Your task to perform on an android device: set default search engine in the chrome app Image 0: 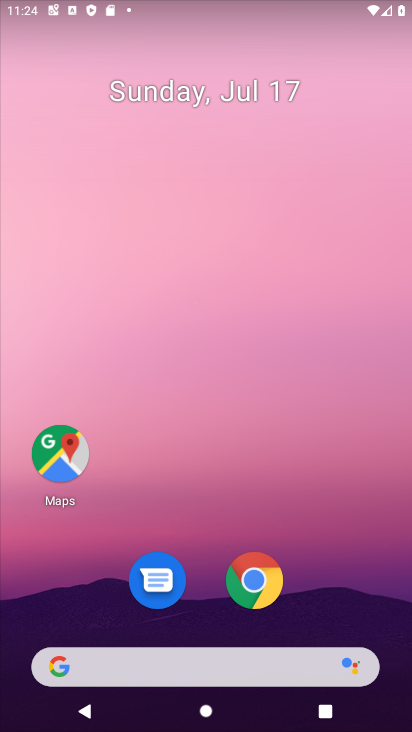
Step 0: drag from (223, 620) to (219, 225)
Your task to perform on an android device: set default search engine in the chrome app Image 1: 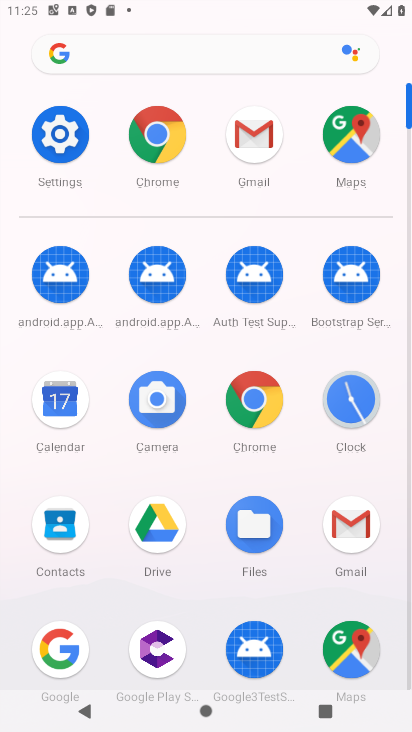
Step 1: click (265, 424)
Your task to perform on an android device: set default search engine in the chrome app Image 2: 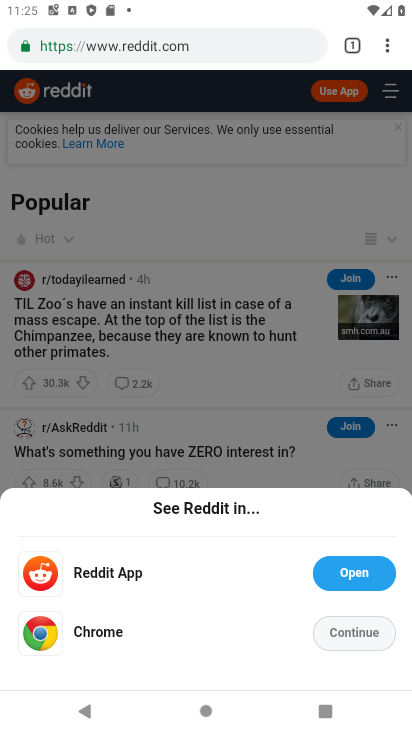
Step 2: click (388, 54)
Your task to perform on an android device: set default search engine in the chrome app Image 3: 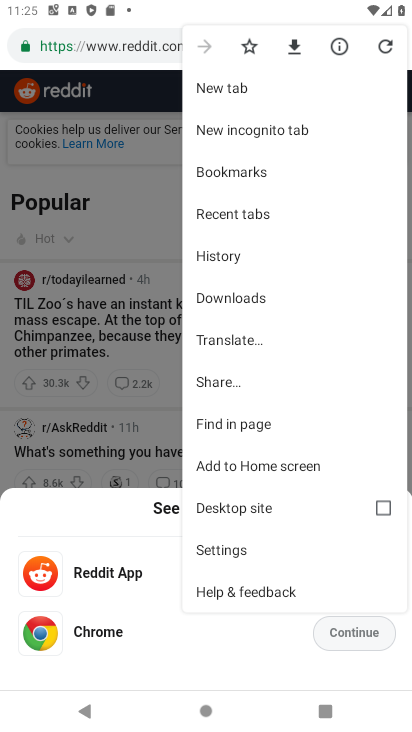
Step 3: click (255, 555)
Your task to perform on an android device: set default search engine in the chrome app Image 4: 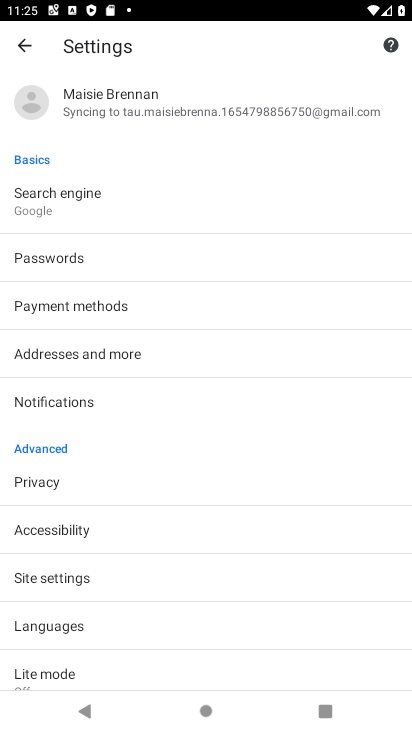
Step 4: drag from (155, 602) to (163, 441)
Your task to perform on an android device: set default search engine in the chrome app Image 5: 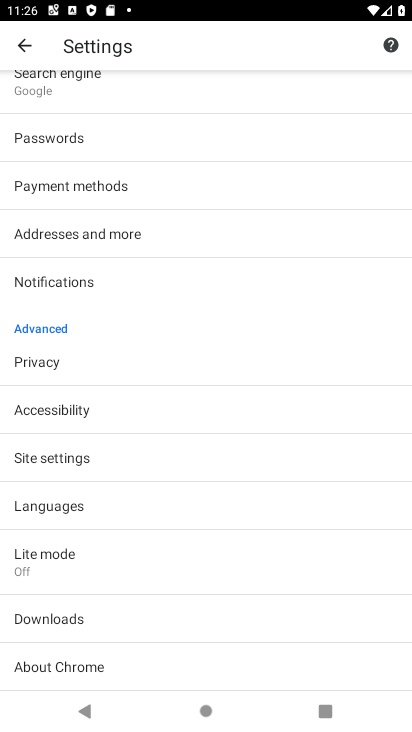
Step 5: drag from (139, 426) to (131, 640)
Your task to perform on an android device: set default search engine in the chrome app Image 6: 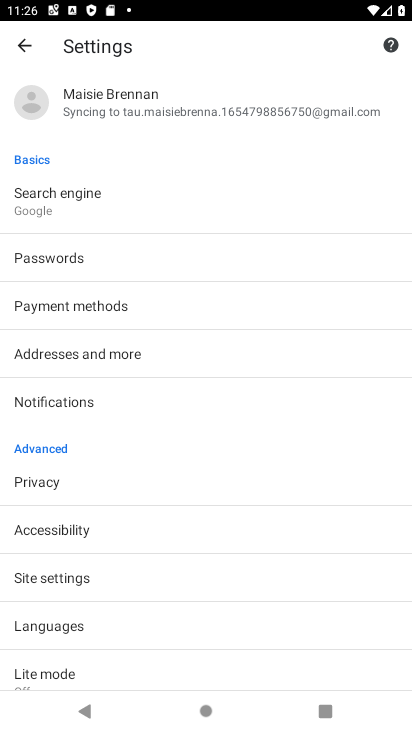
Step 6: click (89, 212)
Your task to perform on an android device: set default search engine in the chrome app Image 7: 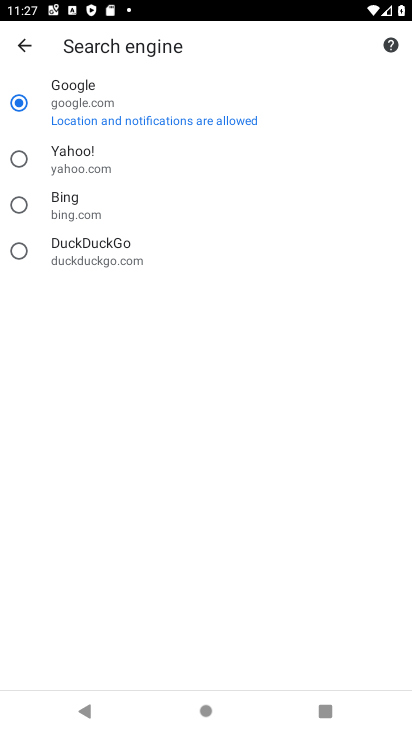
Step 7: task complete